Your task to perform on an android device: Open Google Chrome and click the shortcut for Amazon.com Image 0: 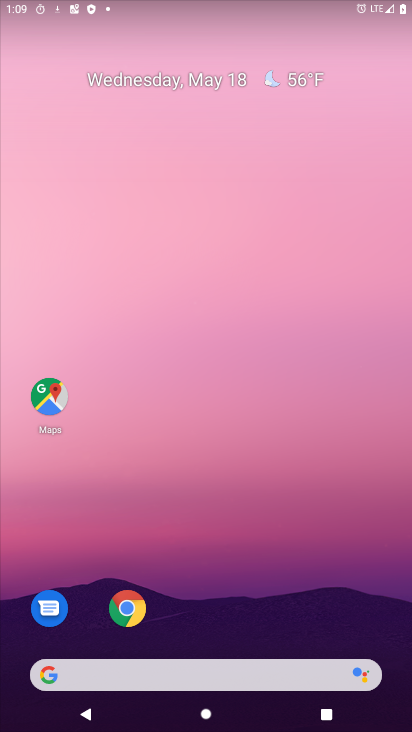
Step 0: press home button
Your task to perform on an android device: Open Google Chrome and click the shortcut for Amazon.com Image 1: 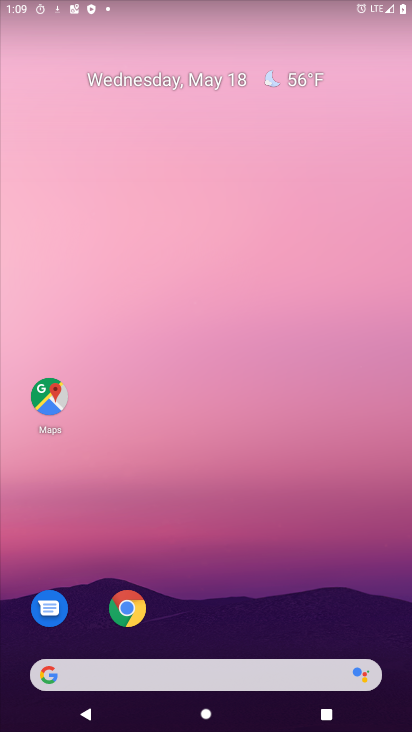
Step 1: drag from (273, 685) to (170, 150)
Your task to perform on an android device: Open Google Chrome and click the shortcut for Amazon.com Image 2: 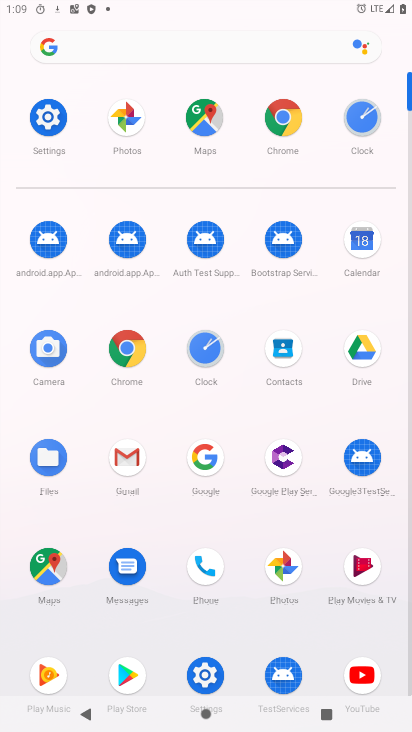
Step 2: click (284, 140)
Your task to perform on an android device: Open Google Chrome and click the shortcut for Amazon.com Image 3: 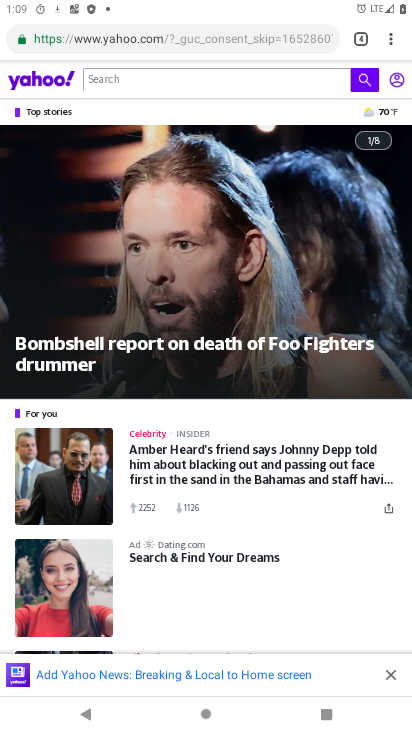
Step 3: click (365, 35)
Your task to perform on an android device: Open Google Chrome and click the shortcut for Amazon.com Image 4: 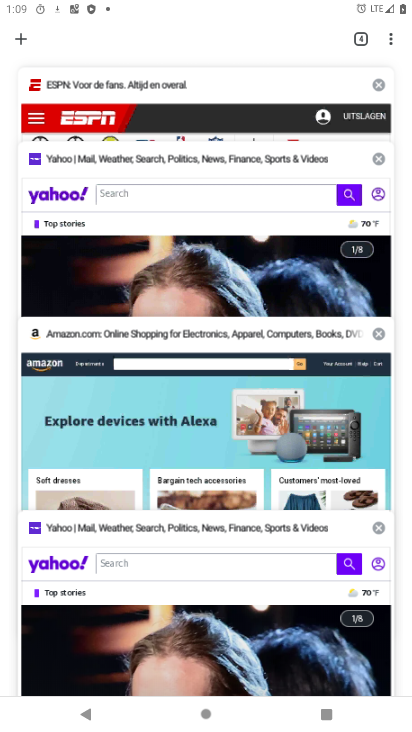
Step 4: click (19, 42)
Your task to perform on an android device: Open Google Chrome and click the shortcut for Amazon.com Image 5: 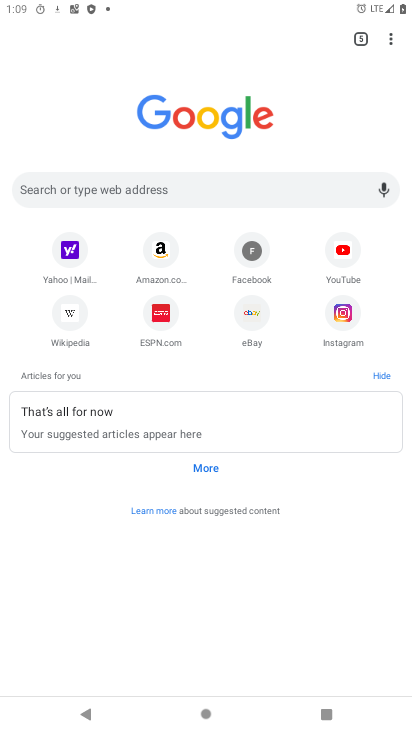
Step 5: click (167, 254)
Your task to perform on an android device: Open Google Chrome and click the shortcut for Amazon.com Image 6: 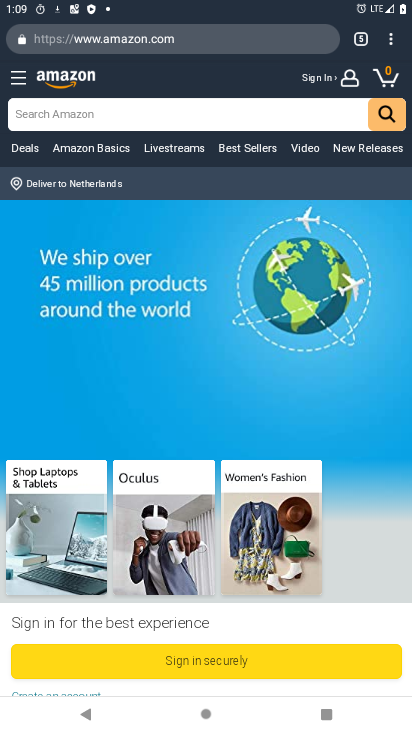
Step 6: click (385, 47)
Your task to perform on an android device: Open Google Chrome and click the shortcut for Amazon.com Image 7: 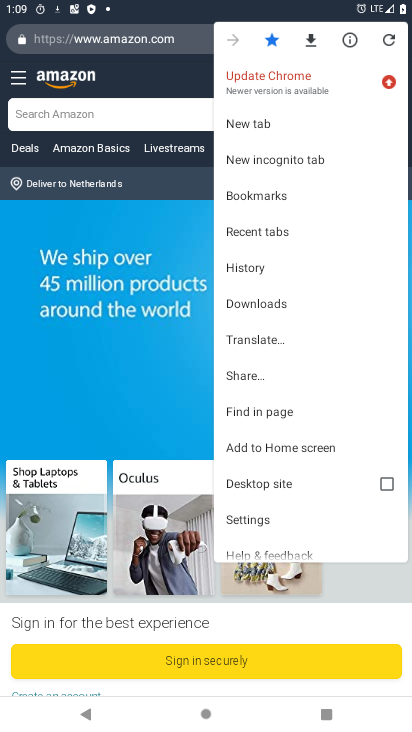
Step 7: click (293, 447)
Your task to perform on an android device: Open Google Chrome and click the shortcut for Amazon.com Image 8: 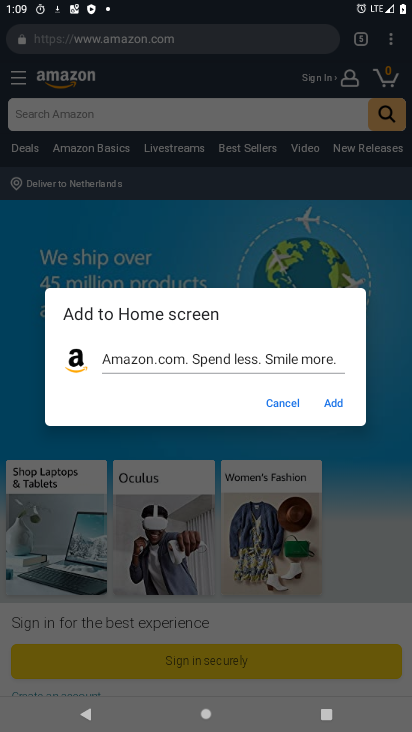
Step 8: click (338, 400)
Your task to perform on an android device: Open Google Chrome and click the shortcut for Amazon.com Image 9: 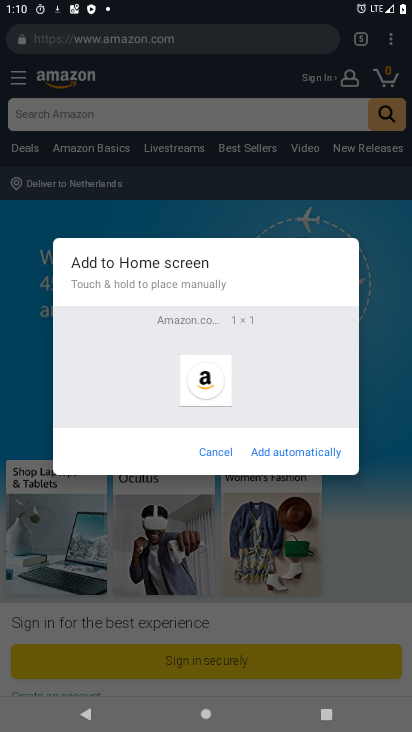
Step 9: click (281, 444)
Your task to perform on an android device: Open Google Chrome and click the shortcut for Amazon.com Image 10: 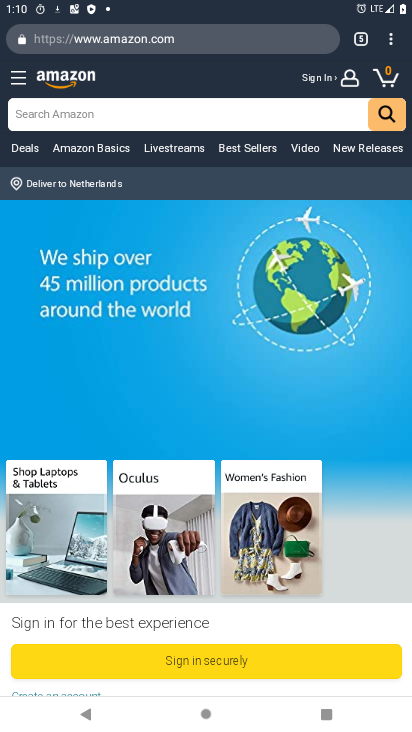
Step 10: task complete